Your task to perform on an android device: Open Google Chrome Image 0: 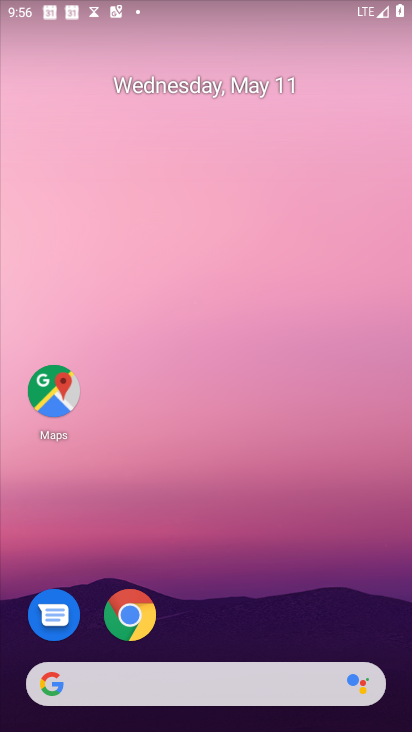
Step 0: drag from (263, 625) to (242, 125)
Your task to perform on an android device: Open Google Chrome Image 1: 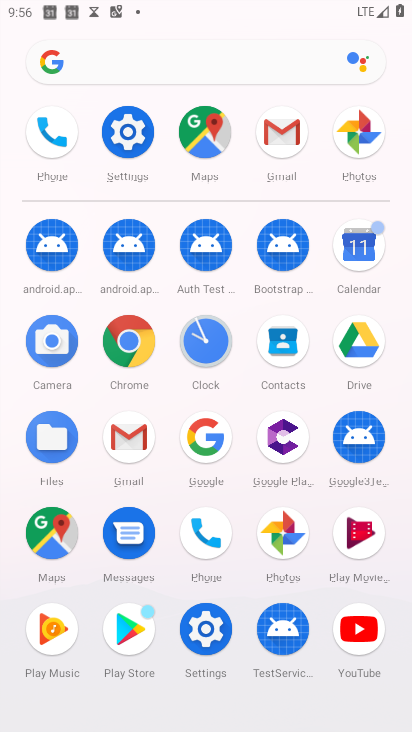
Step 1: click (133, 352)
Your task to perform on an android device: Open Google Chrome Image 2: 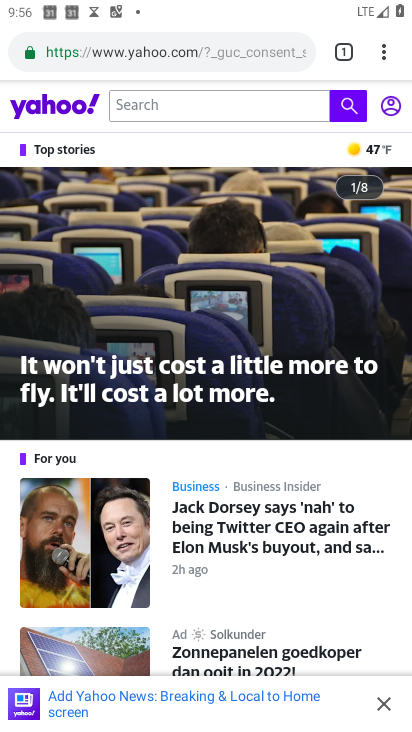
Step 2: task complete